Your task to perform on an android device: Show me popular games on the Play Store Image 0: 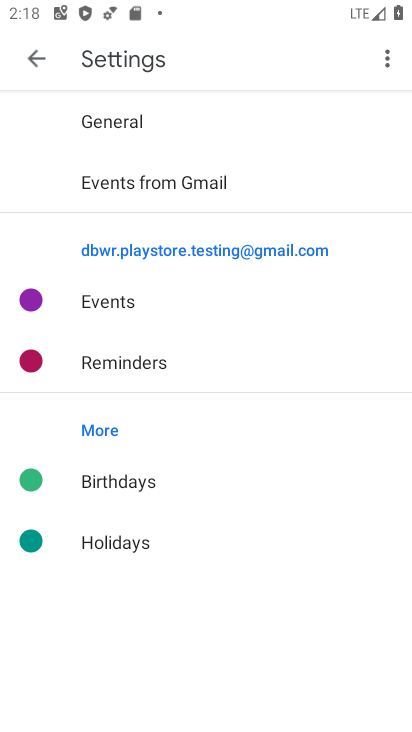
Step 0: press home button
Your task to perform on an android device: Show me popular games on the Play Store Image 1: 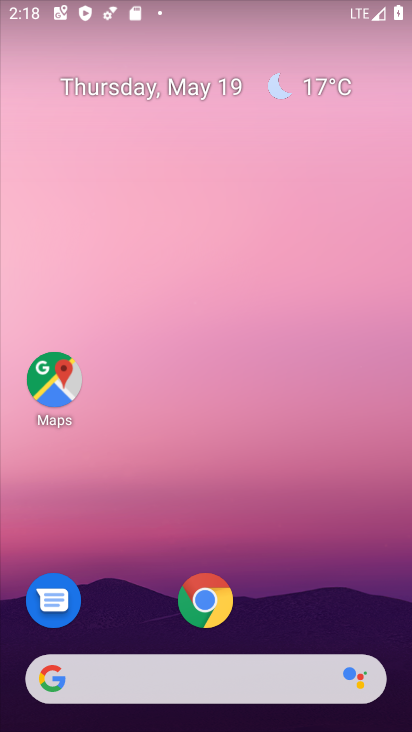
Step 1: drag from (293, 589) to (273, 251)
Your task to perform on an android device: Show me popular games on the Play Store Image 2: 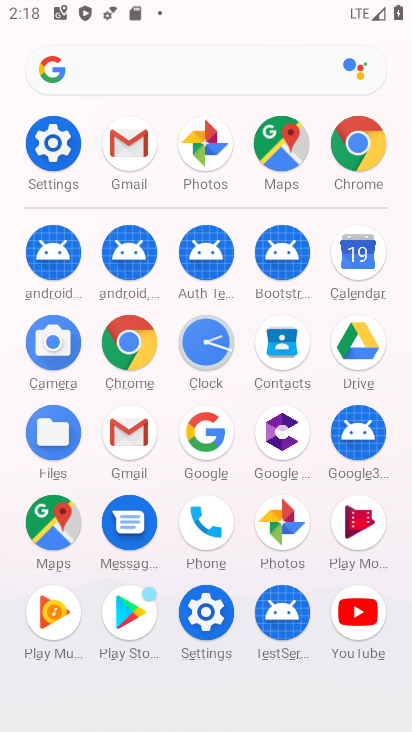
Step 2: click (133, 598)
Your task to perform on an android device: Show me popular games on the Play Store Image 3: 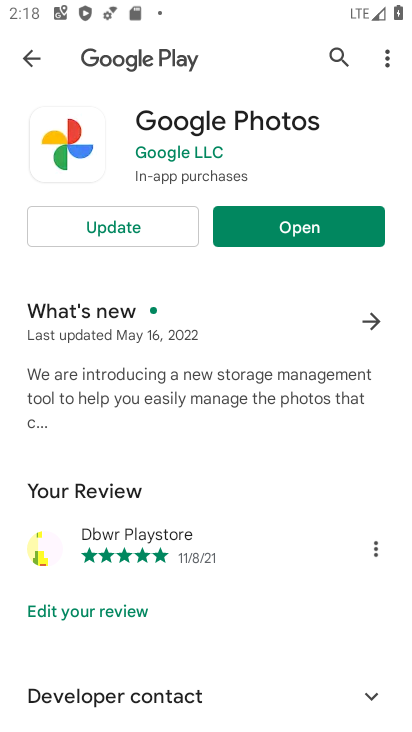
Step 3: click (35, 52)
Your task to perform on an android device: Show me popular games on the Play Store Image 4: 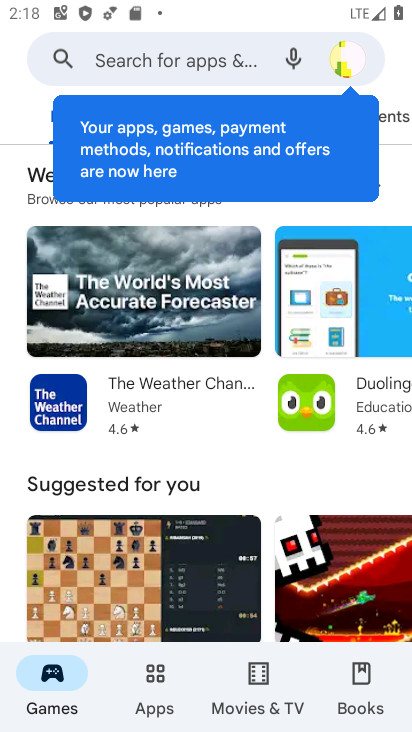
Step 4: click (255, 374)
Your task to perform on an android device: Show me popular games on the Play Store Image 5: 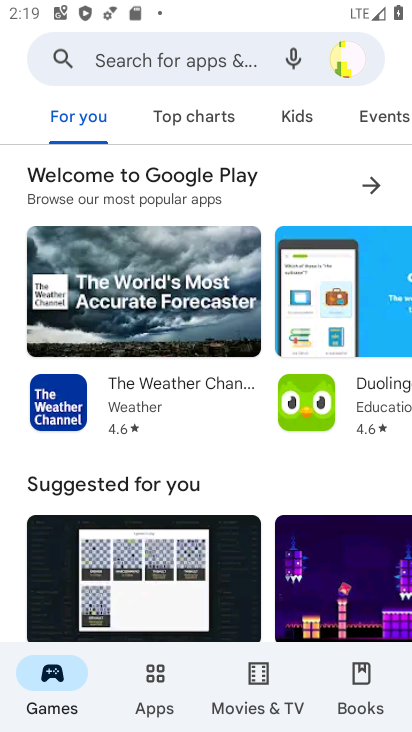
Step 5: click (184, 122)
Your task to perform on an android device: Show me popular games on the Play Store Image 6: 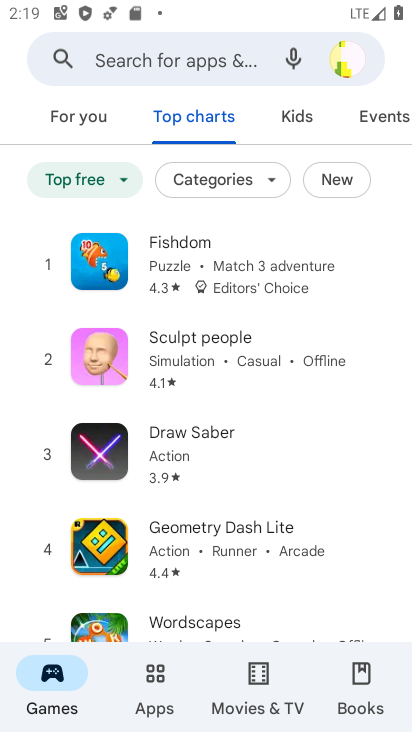
Step 6: task complete